Your task to perform on an android device: open sync settings in chrome Image 0: 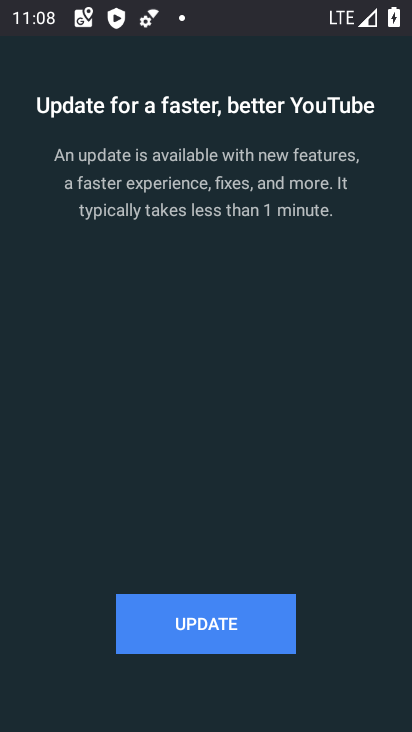
Step 0: press back button
Your task to perform on an android device: open sync settings in chrome Image 1: 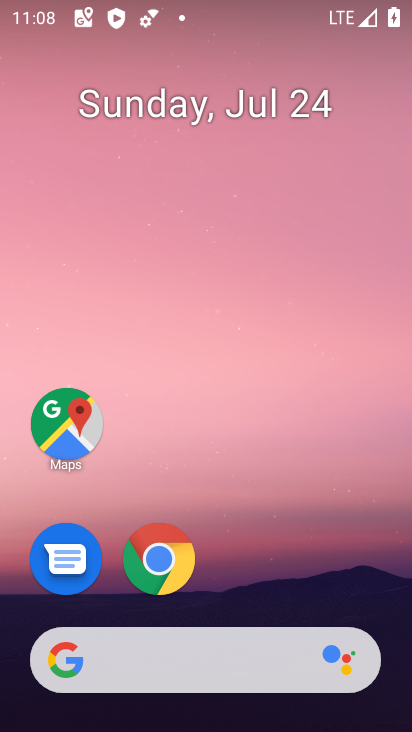
Step 1: click (167, 573)
Your task to perform on an android device: open sync settings in chrome Image 2: 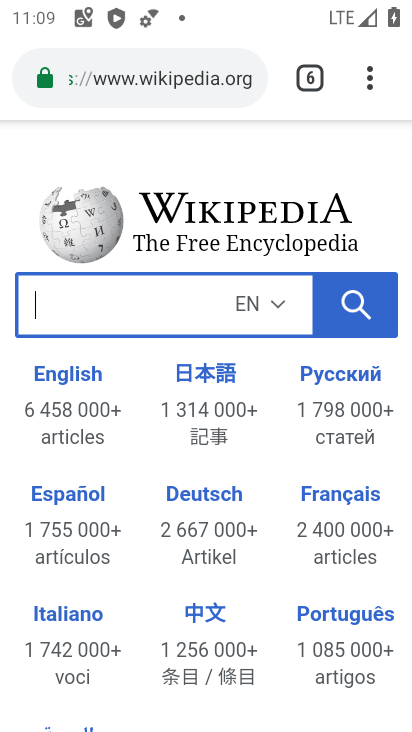
Step 2: drag from (372, 65) to (101, 607)
Your task to perform on an android device: open sync settings in chrome Image 3: 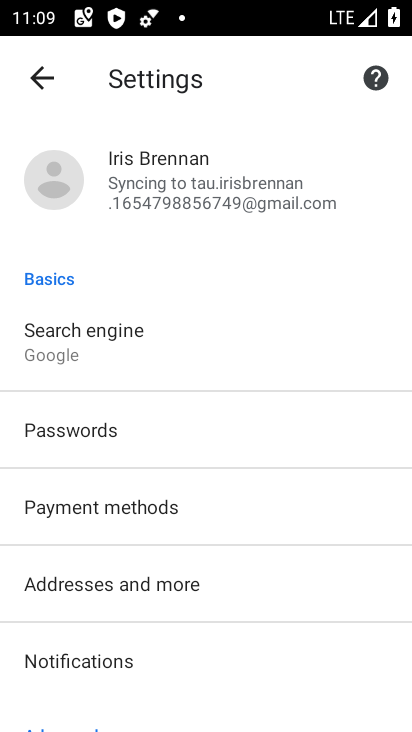
Step 3: drag from (120, 661) to (263, 119)
Your task to perform on an android device: open sync settings in chrome Image 4: 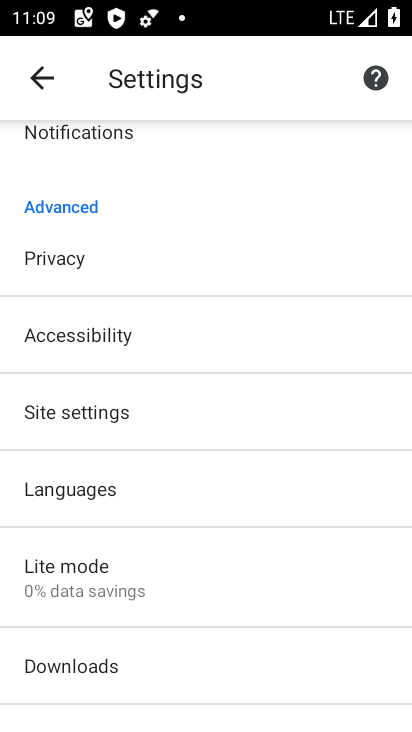
Step 4: drag from (190, 199) to (203, 721)
Your task to perform on an android device: open sync settings in chrome Image 5: 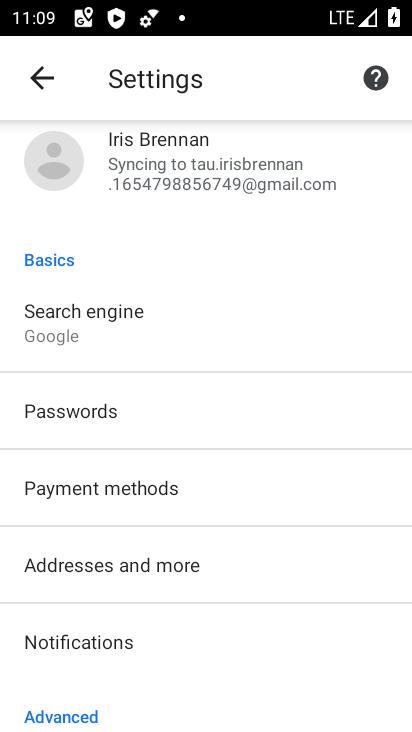
Step 5: click (159, 151)
Your task to perform on an android device: open sync settings in chrome Image 6: 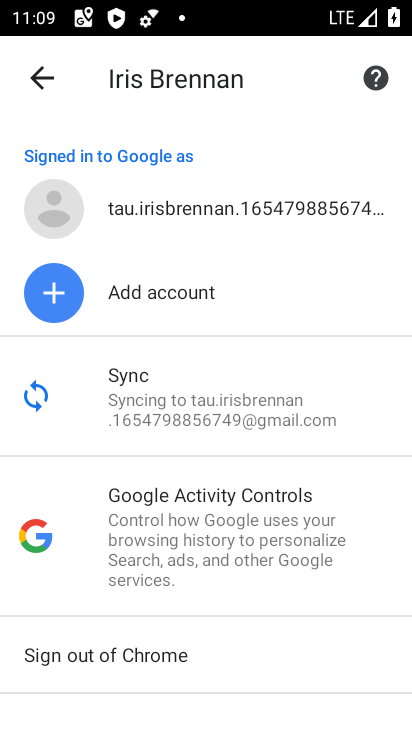
Step 6: task complete